Your task to perform on an android device: Go to Maps Image 0: 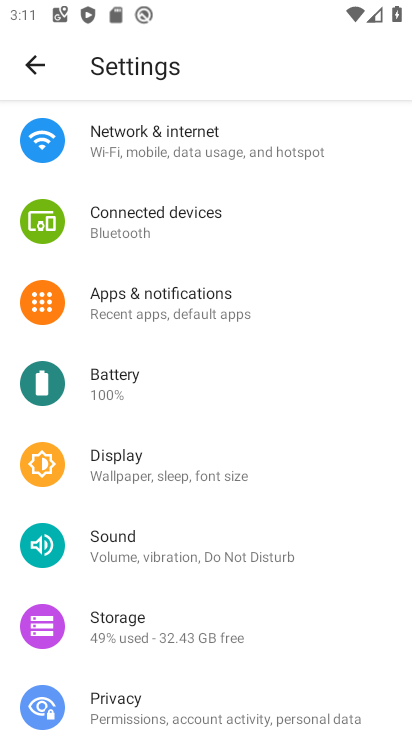
Step 0: press home button
Your task to perform on an android device: Go to Maps Image 1: 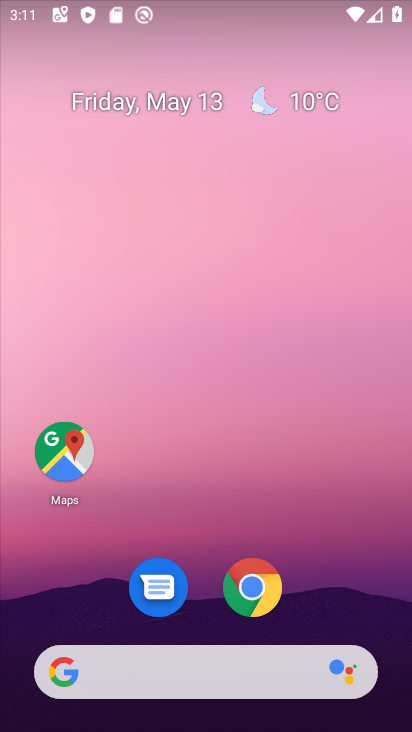
Step 1: click (57, 455)
Your task to perform on an android device: Go to Maps Image 2: 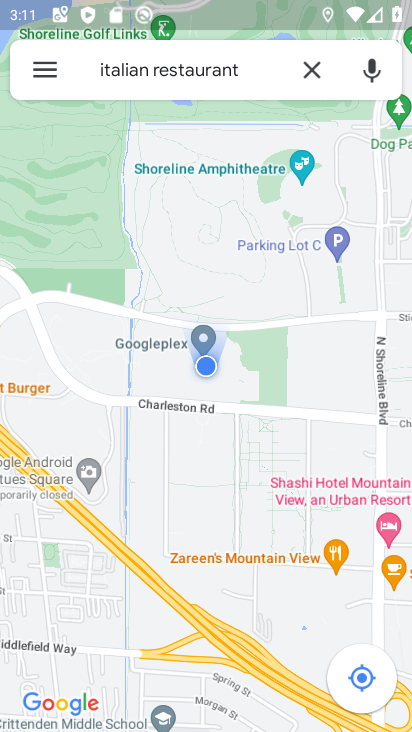
Step 2: task complete